Your task to perform on an android device: Open CNN.com Image 0: 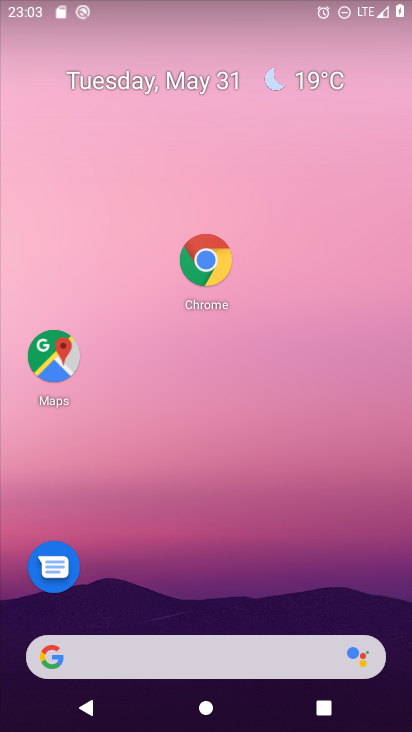
Step 0: drag from (131, 627) to (132, 166)
Your task to perform on an android device: Open CNN.com Image 1: 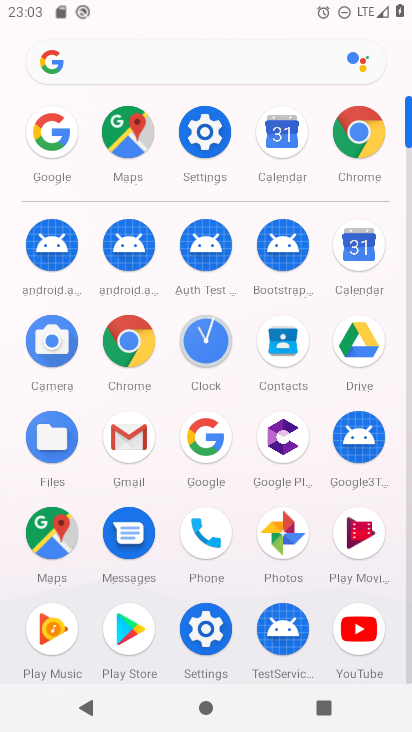
Step 1: click (199, 436)
Your task to perform on an android device: Open CNN.com Image 2: 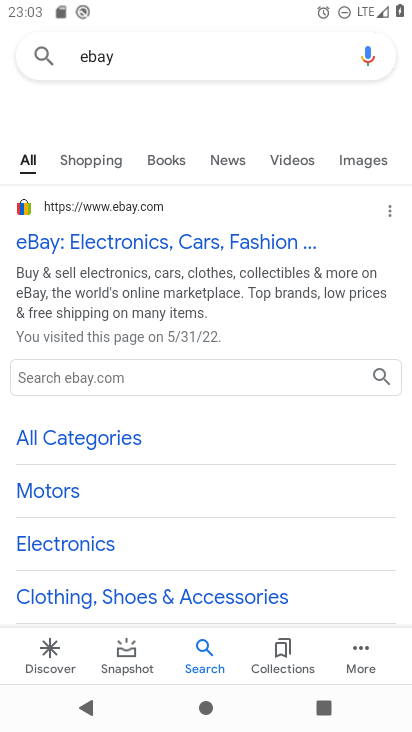
Step 2: click (137, 53)
Your task to perform on an android device: Open CNN.com Image 3: 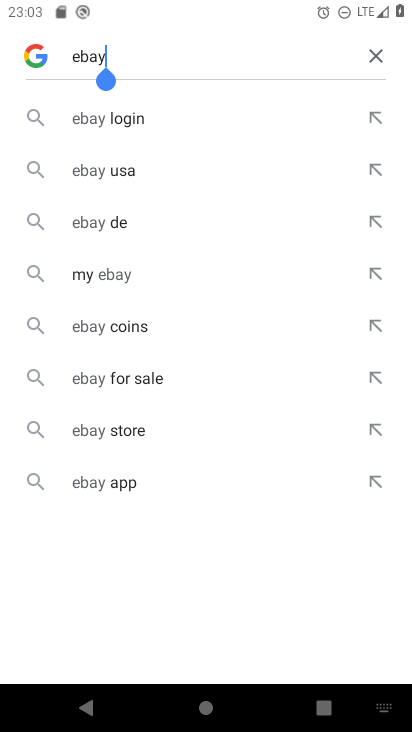
Step 3: click (372, 43)
Your task to perform on an android device: Open CNN.com Image 4: 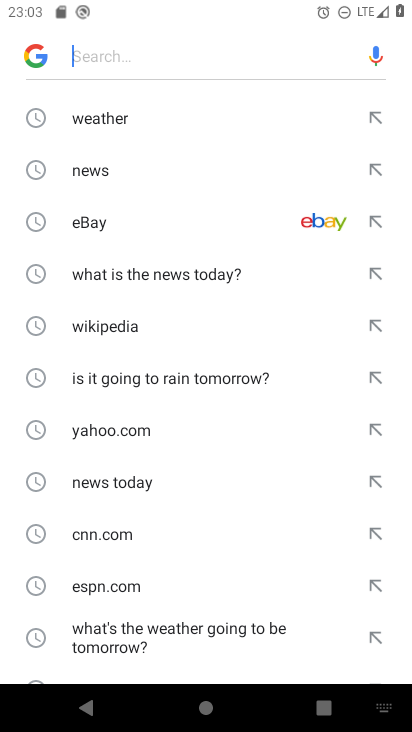
Step 4: click (110, 539)
Your task to perform on an android device: Open CNN.com Image 5: 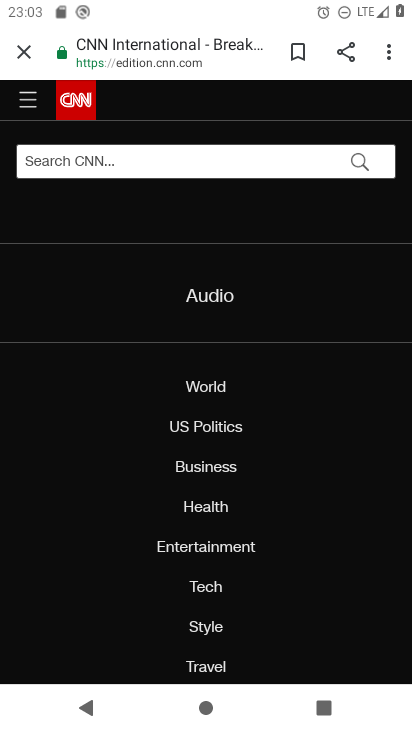
Step 5: task complete